Your task to perform on an android device: Search for razer deathadder on target.com, select the first entry, add it to the cart, then select checkout. Image 0: 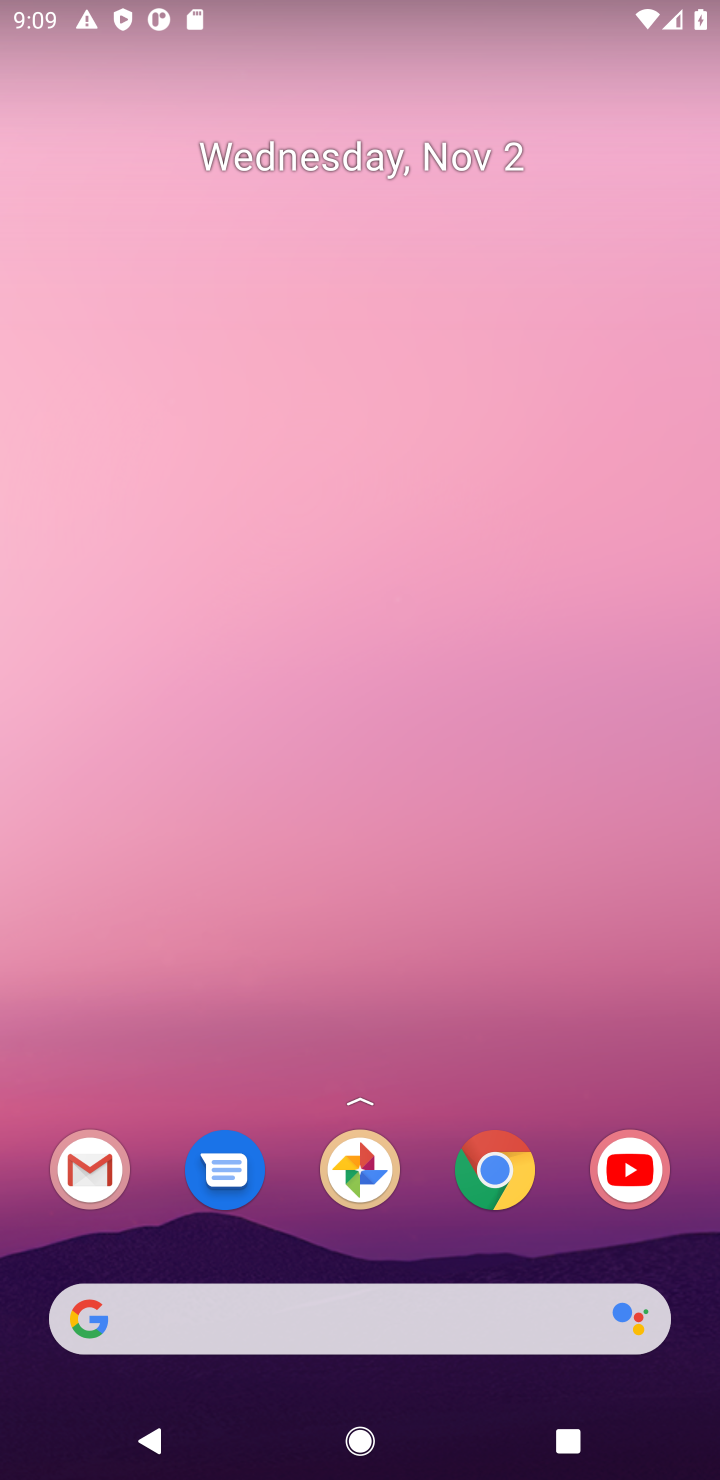
Step 0: click (491, 1189)
Your task to perform on an android device: Search for razer deathadder on target.com, select the first entry, add it to the cart, then select checkout. Image 1: 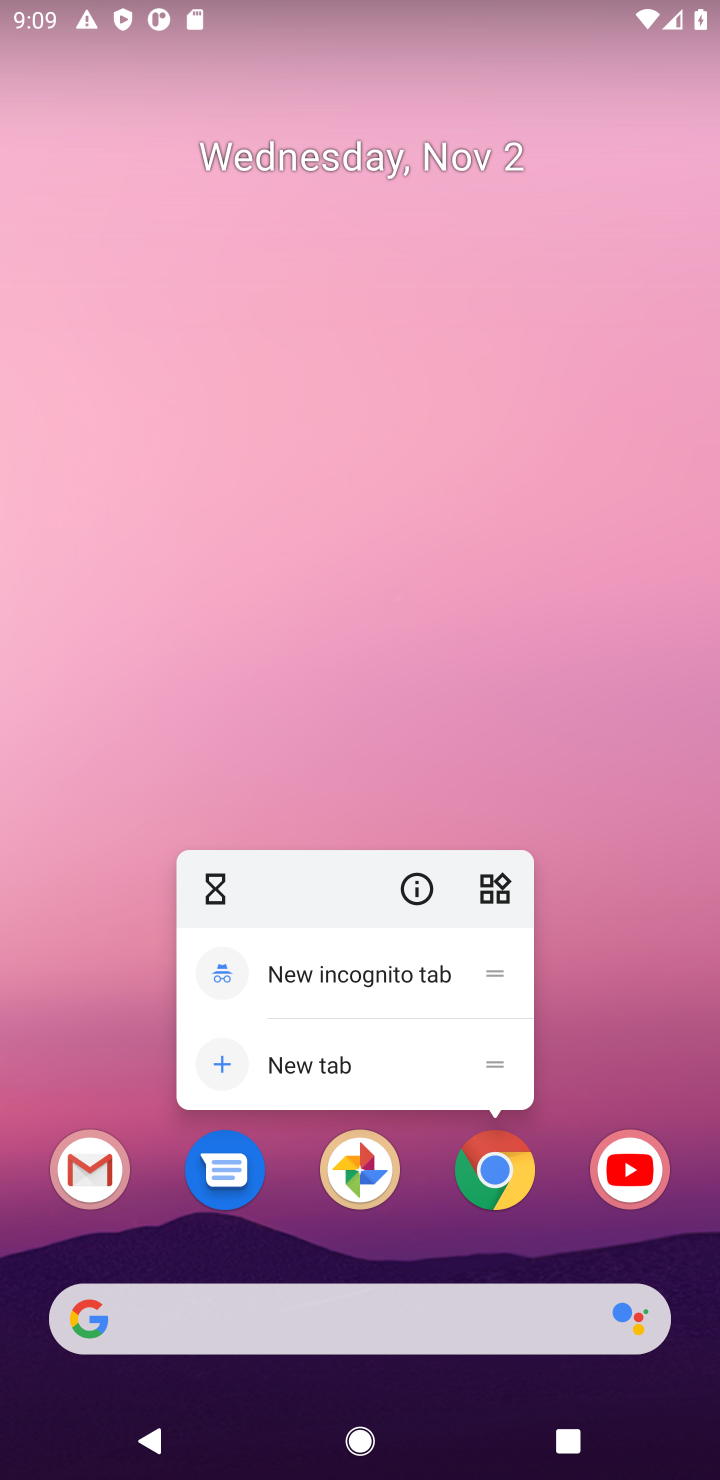
Step 1: click (510, 1194)
Your task to perform on an android device: Search for razer deathadder on target.com, select the first entry, add it to the cart, then select checkout. Image 2: 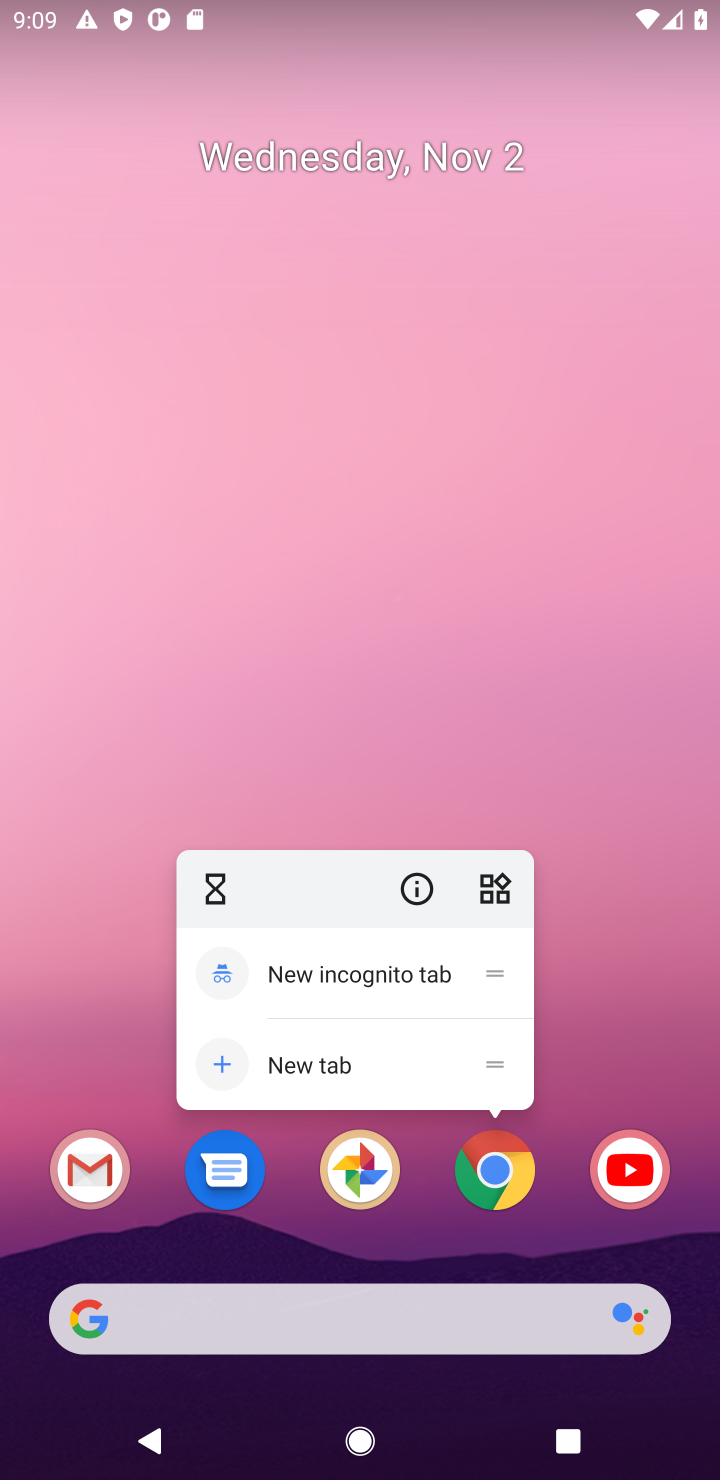
Step 2: click (526, 1178)
Your task to perform on an android device: Search for razer deathadder on target.com, select the first entry, add it to the cart, then select checkout. Image 3: 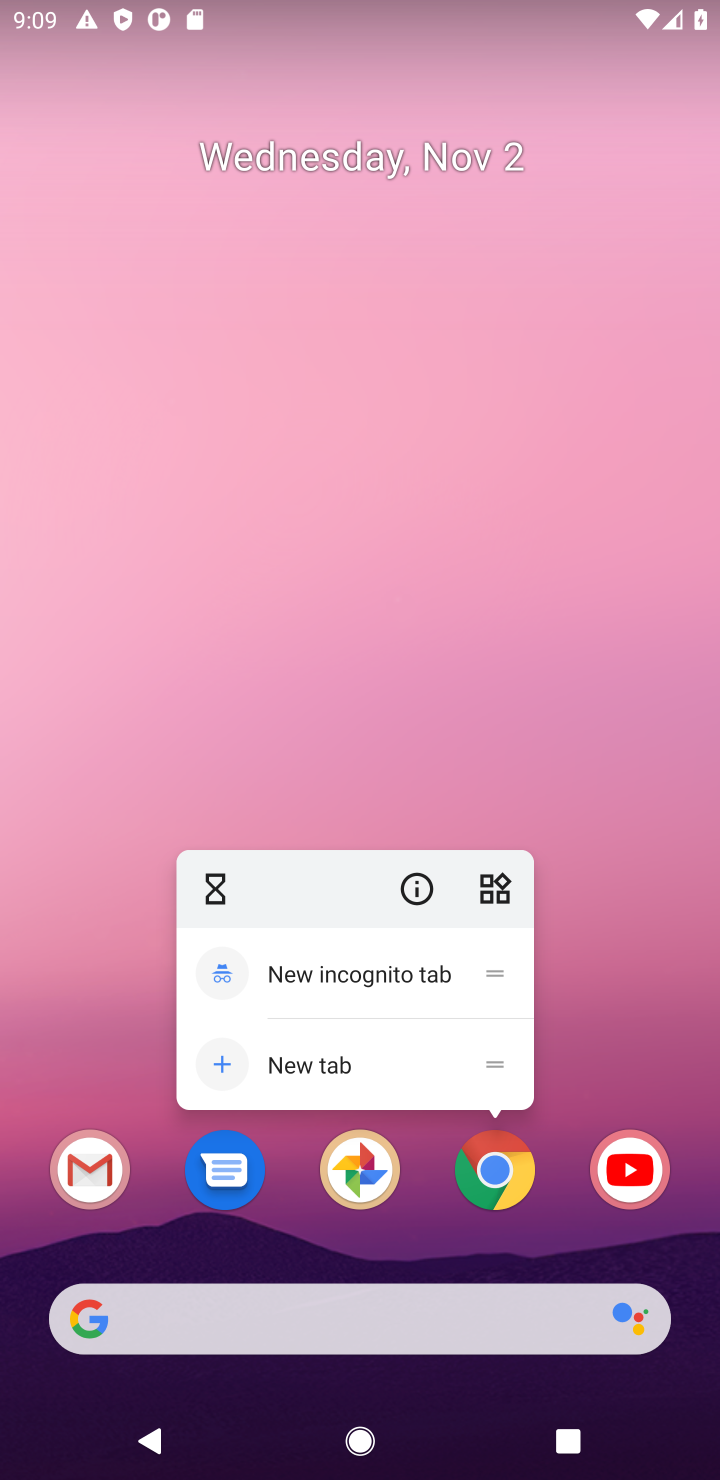
Step 3: click (512, 1190)
Your task to perform on an android device: Search for razer deathadder on target.com, select the first entry, add it to the cart, then select checkout. Image 4: 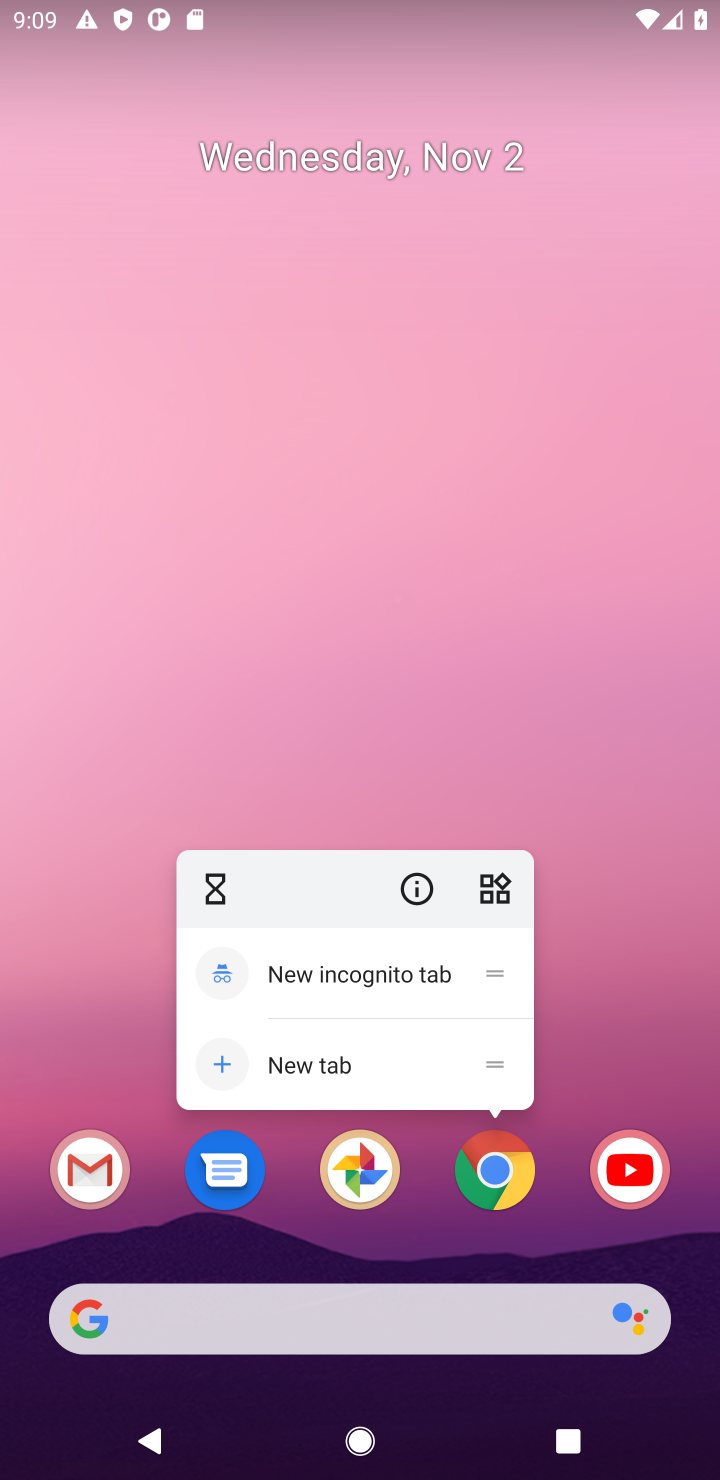
Step 4: click (486, 1189)
Your task to perform on an android device: Search for razer deathadder on target.com, select the first entry, add it to the cart, then select checkout. Image 5: 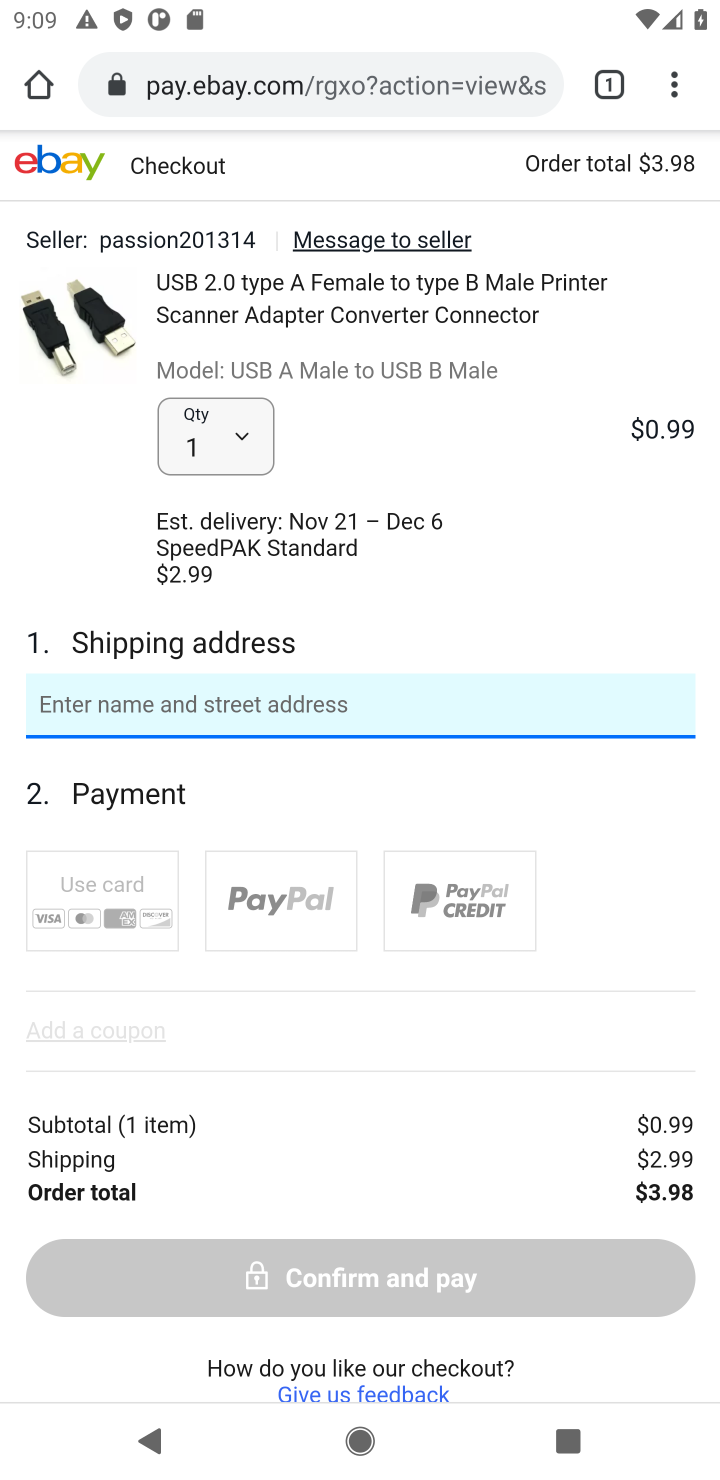
Step 5: click (334, 77)
Your task to perform on an android device: Search for razer deathadder on target.com, select the first entry, add it to the cart, then select checkout. Image 6: 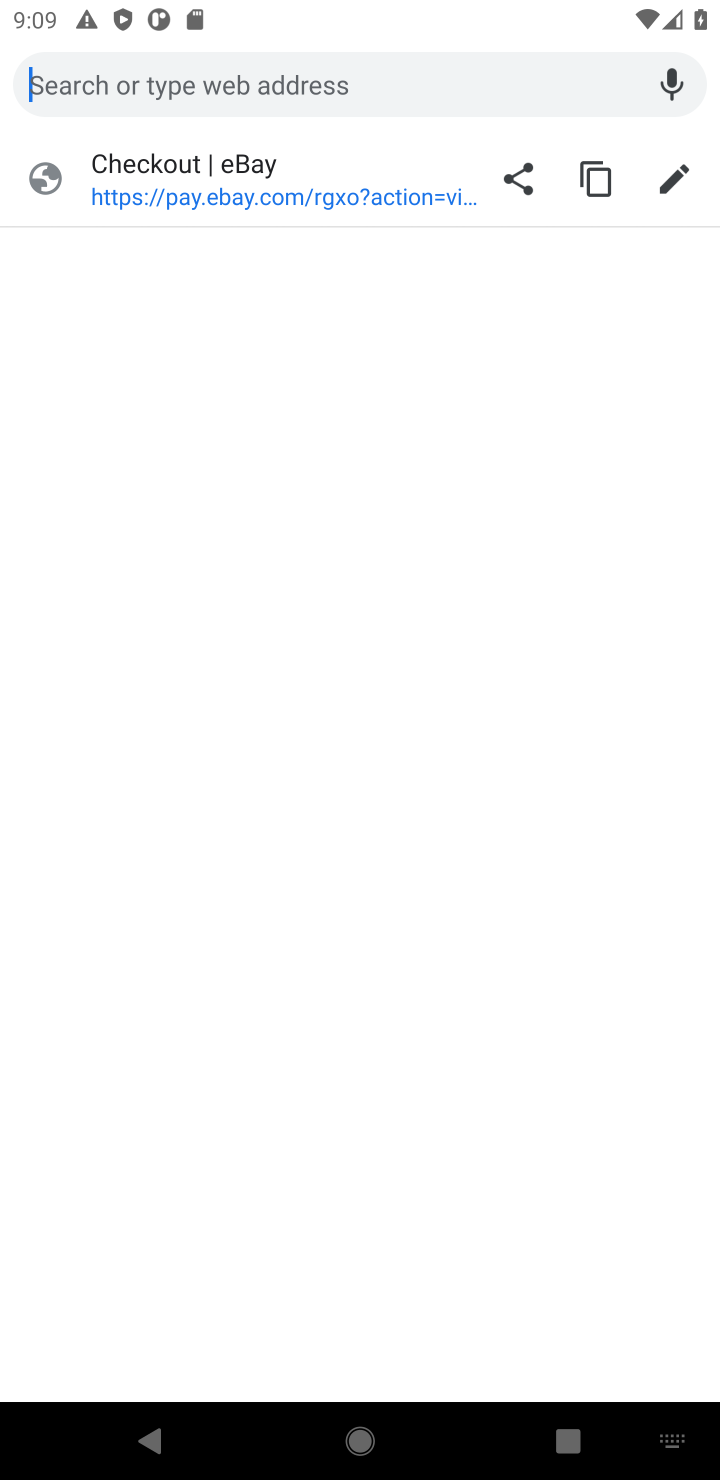
Step 6: type "target.com"
Your task to perform on an android device: Search for razer deathadder on target.com, select the first entry, add it to the cart, then select checkout. Image 7: 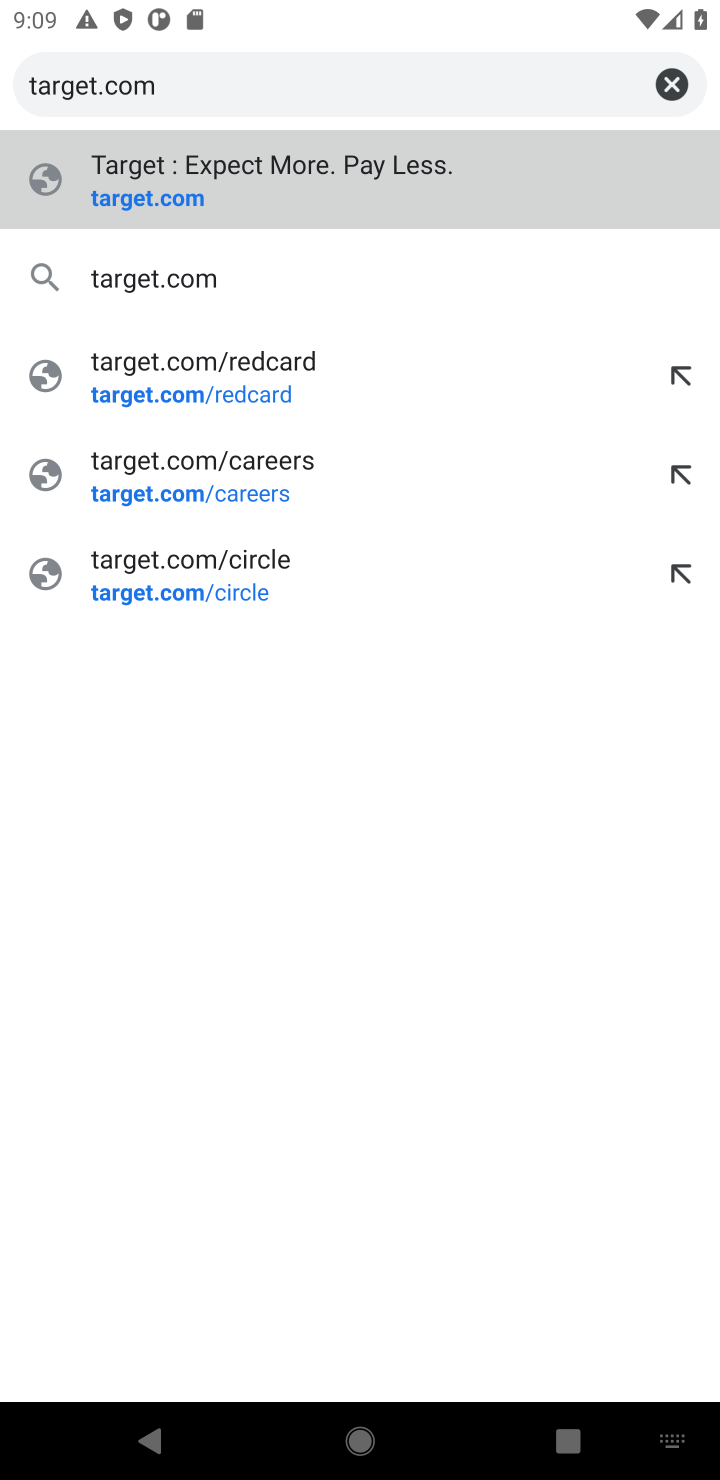
Step 7: type ""
Your task to perform on an android device: Search for razer deathadder on target.com, select the first entry, add it to the cart, then select checkout. Image 8: 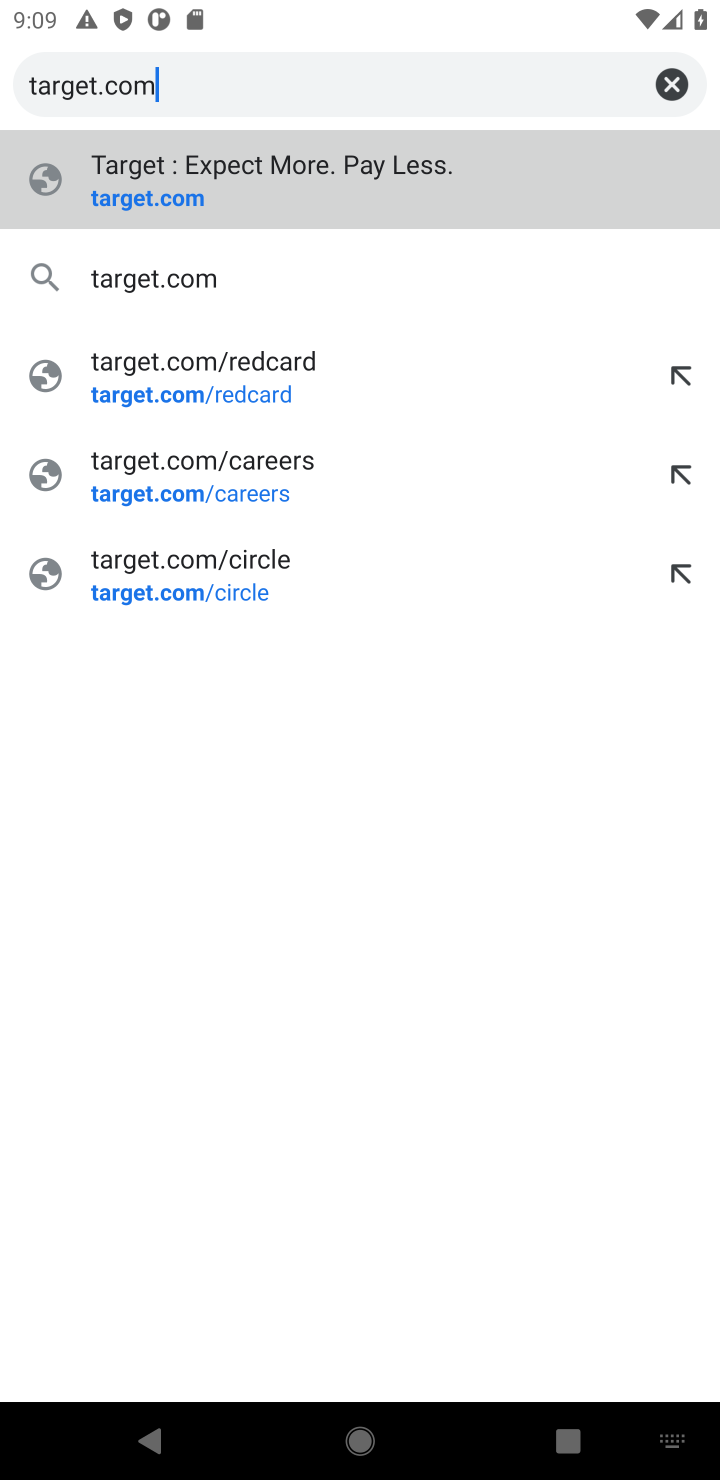
Step 8: press enter
Your task to perform on an android device: Search for razer deathadder on target.com, select the first entry, add it to the cart, then select checkout. Image 9: 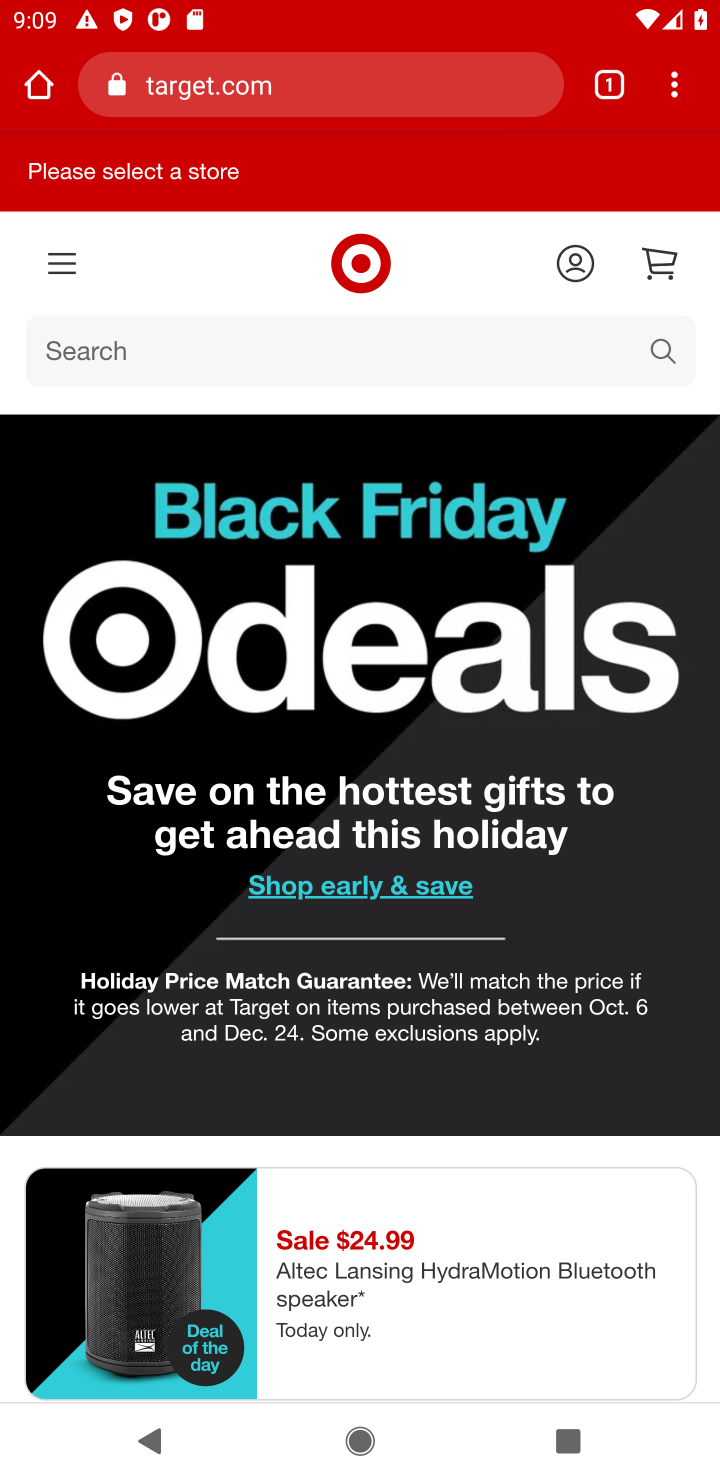
Step 9: click (343, 357)
Your task to perform on an android device: Search for razer deathadder on target.com, select the first entry, add it to the cart, then select checkout. Image 10: 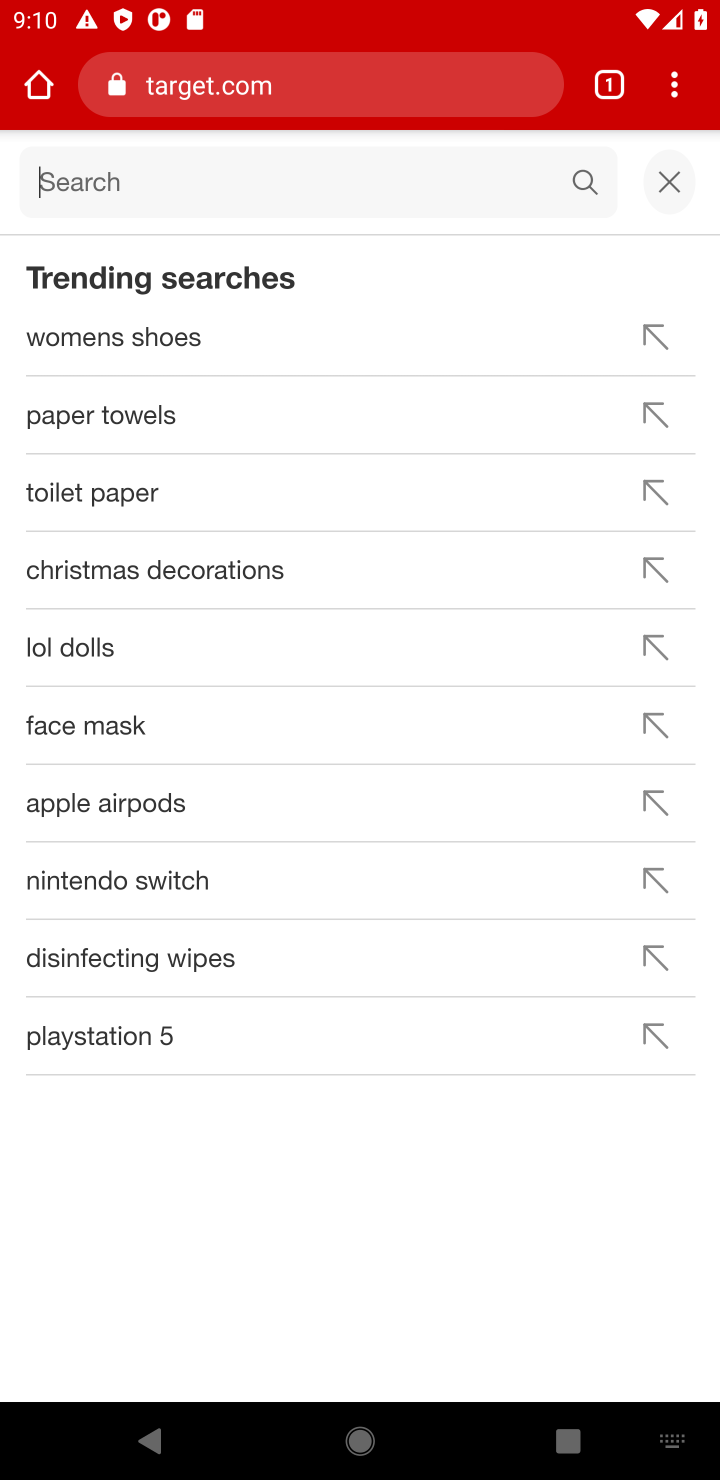
Step 10: type "razer deathadder"
Your task to perform on an android device: Search for razer deathadder on target.com, select the first entry, add it to the cart, then select checkout. Image 11: 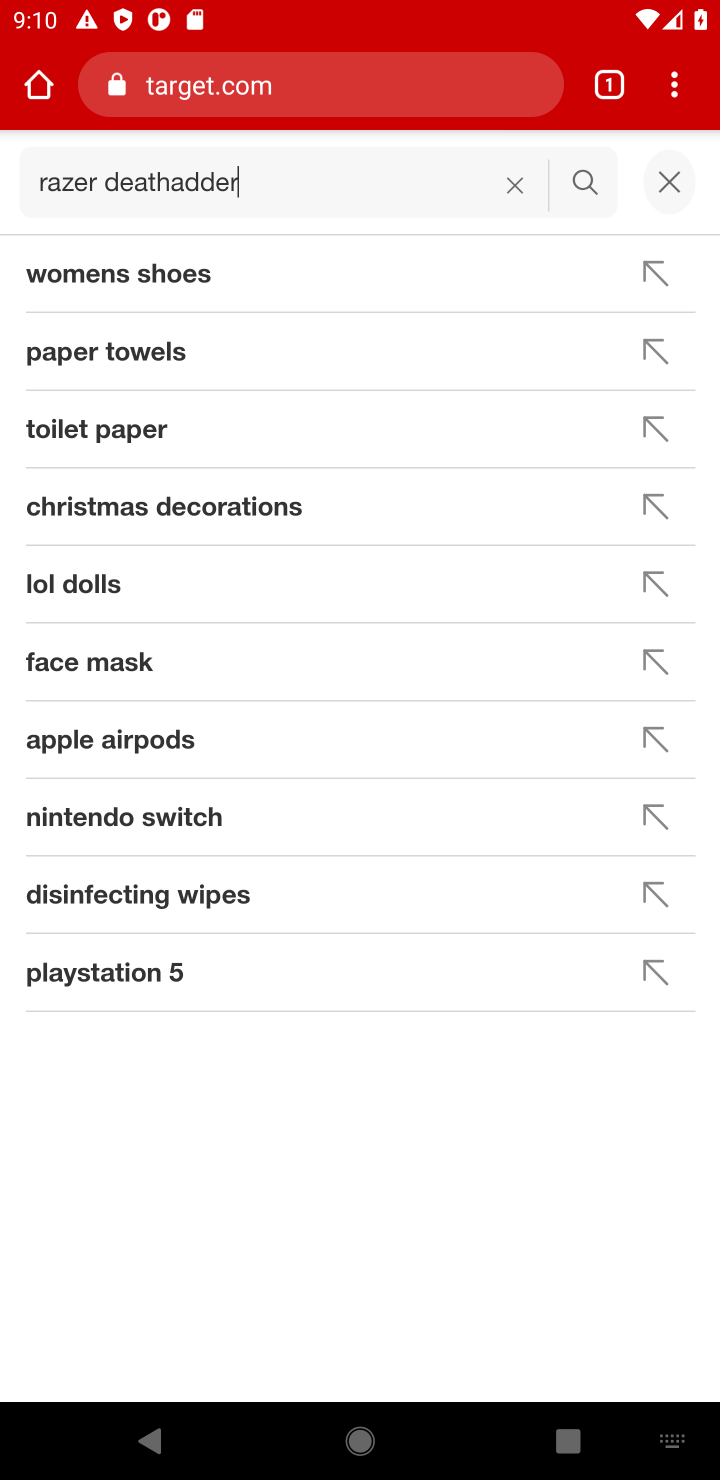
Step 11: type ""
Your task to perform on an android device: Search for razer deathadder on target.com, select the first entry, add it to the cart, then select checkout. Image 12: 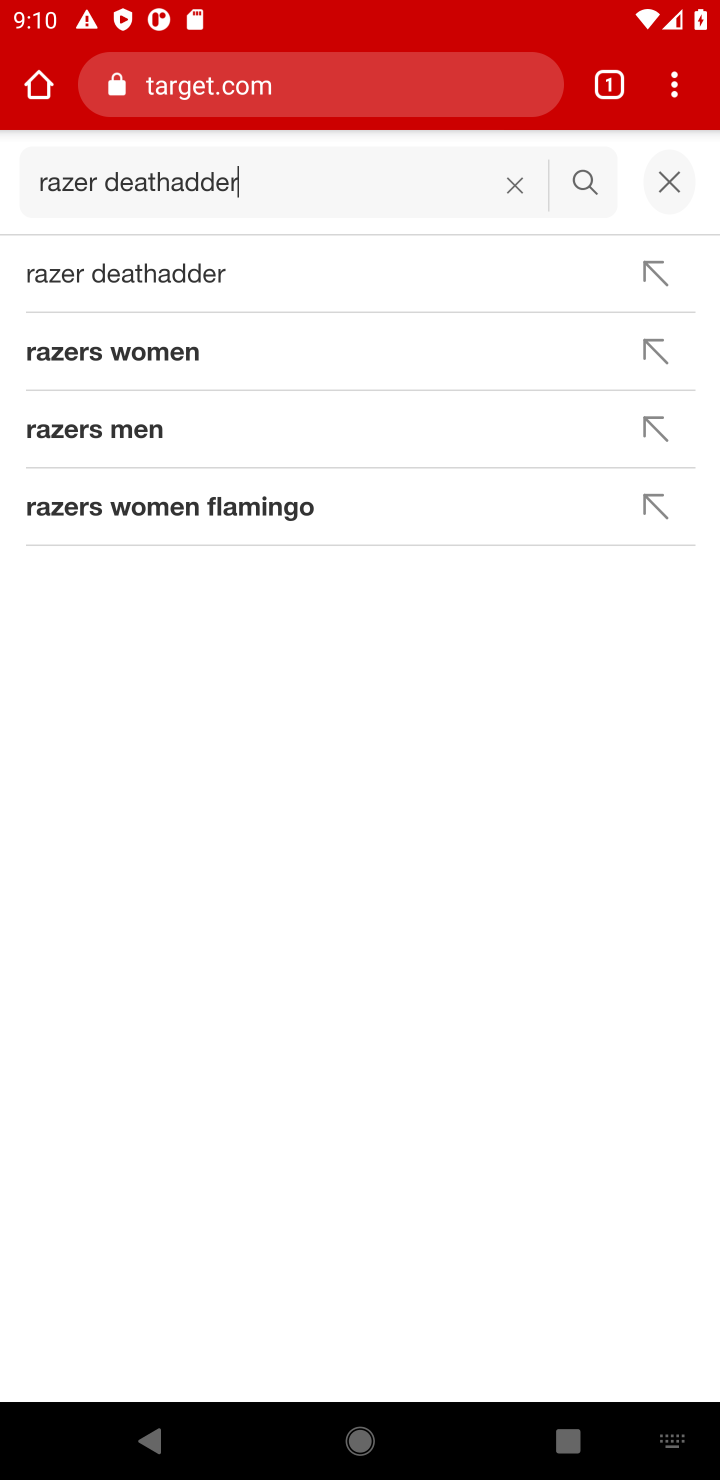
Step 12: press enter
Your task to perform on an android device: Search for razer deathadder on target.com, select the first entry, add it to the cart, then select checkout. Image 13: 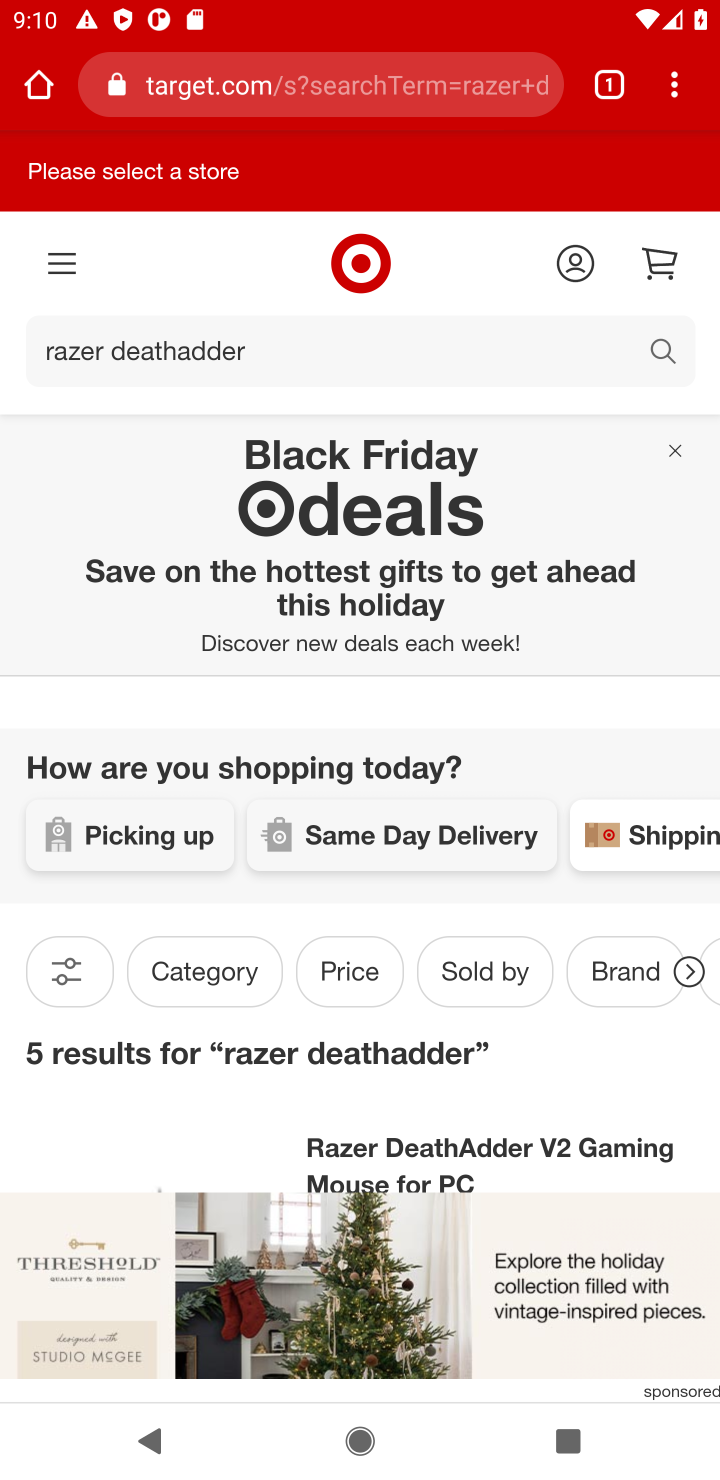
Step 13: drag from (390, 1063) to (560, 258)
Your task to perform on an android device: Search for razer deathadder on target.com, select the first entry, add it to the cart, then select checkout. Image 14: 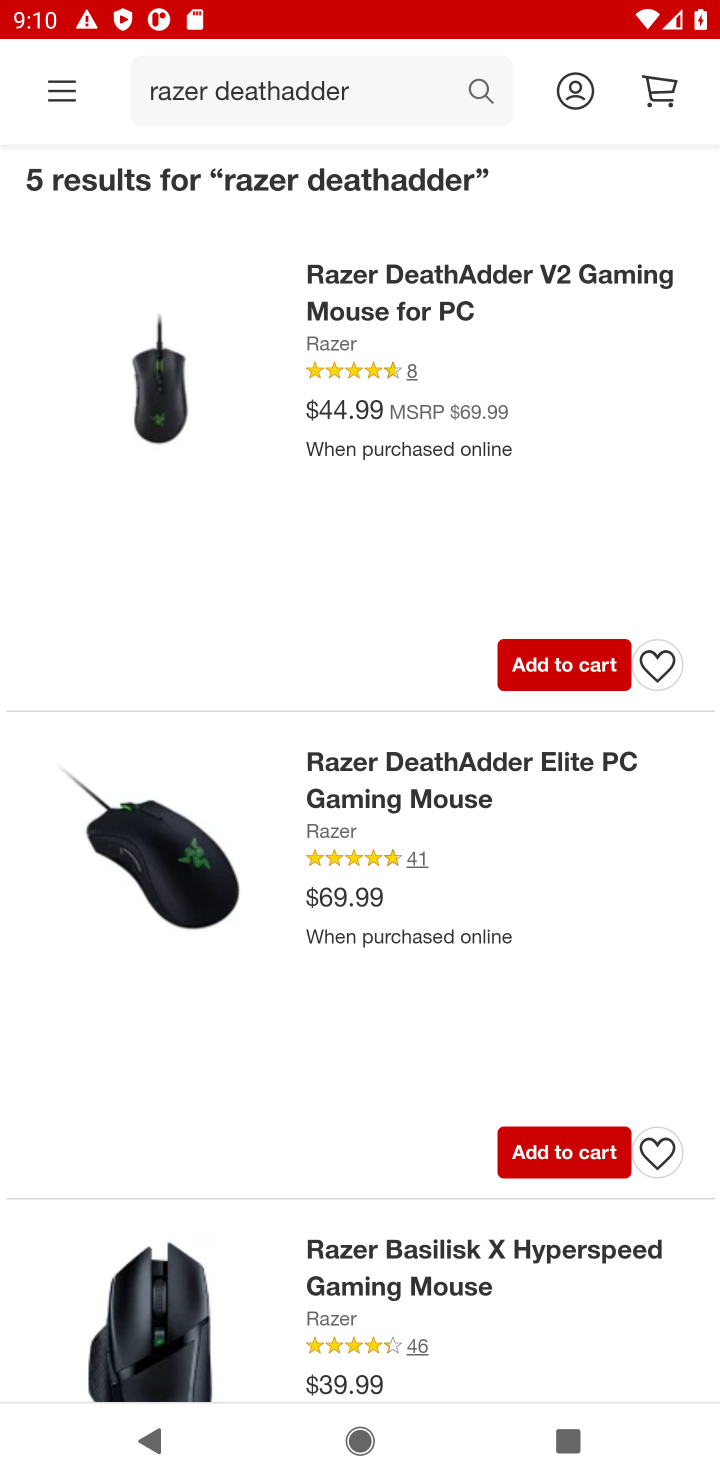
Step 14: drag from (429, 402) to (516, 999)
Your task to perform on an android device: Search for razer deathadder on target.com, select the first entry, add it to the cart, then select checkout. Image 15: 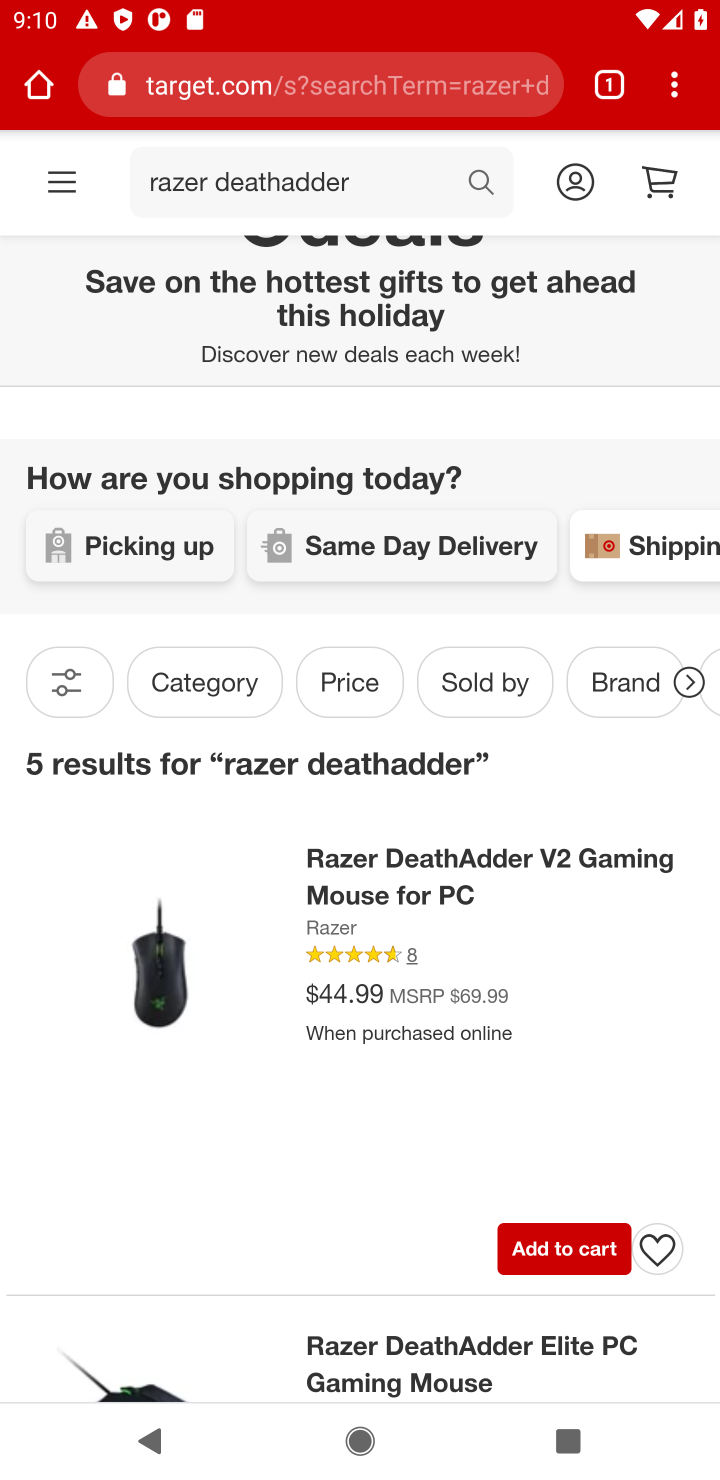
Step 15: drag from (580, 444) to (617, 868)
Your task to perform on an android device: Search for razer deathadder on target.com, select the first entry, add it to the cart, then select checkout. Image 16: 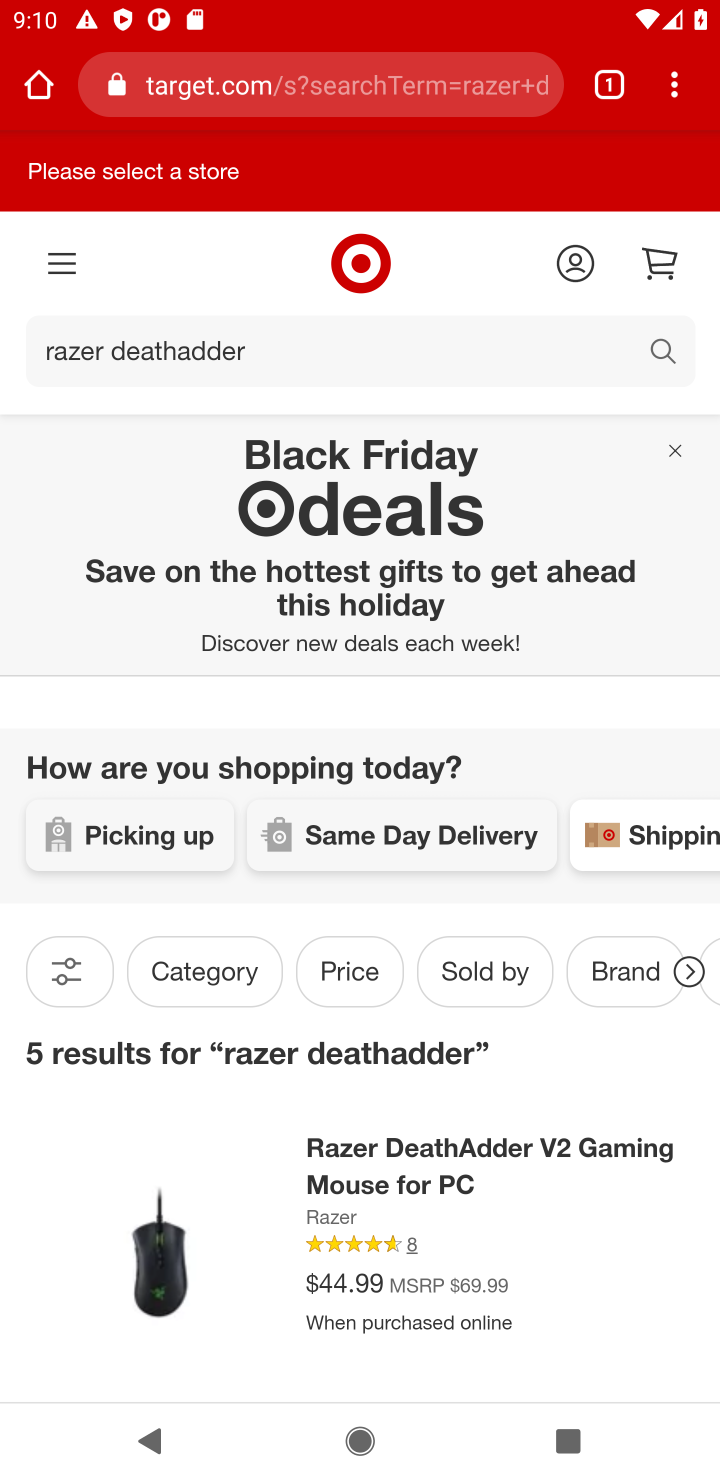
Step 16: click (497, 726)
Your task to perform on an android device: Search for razer deathadder on target.com, select the first entry, add it to the cart, then select checkout. Image 17: 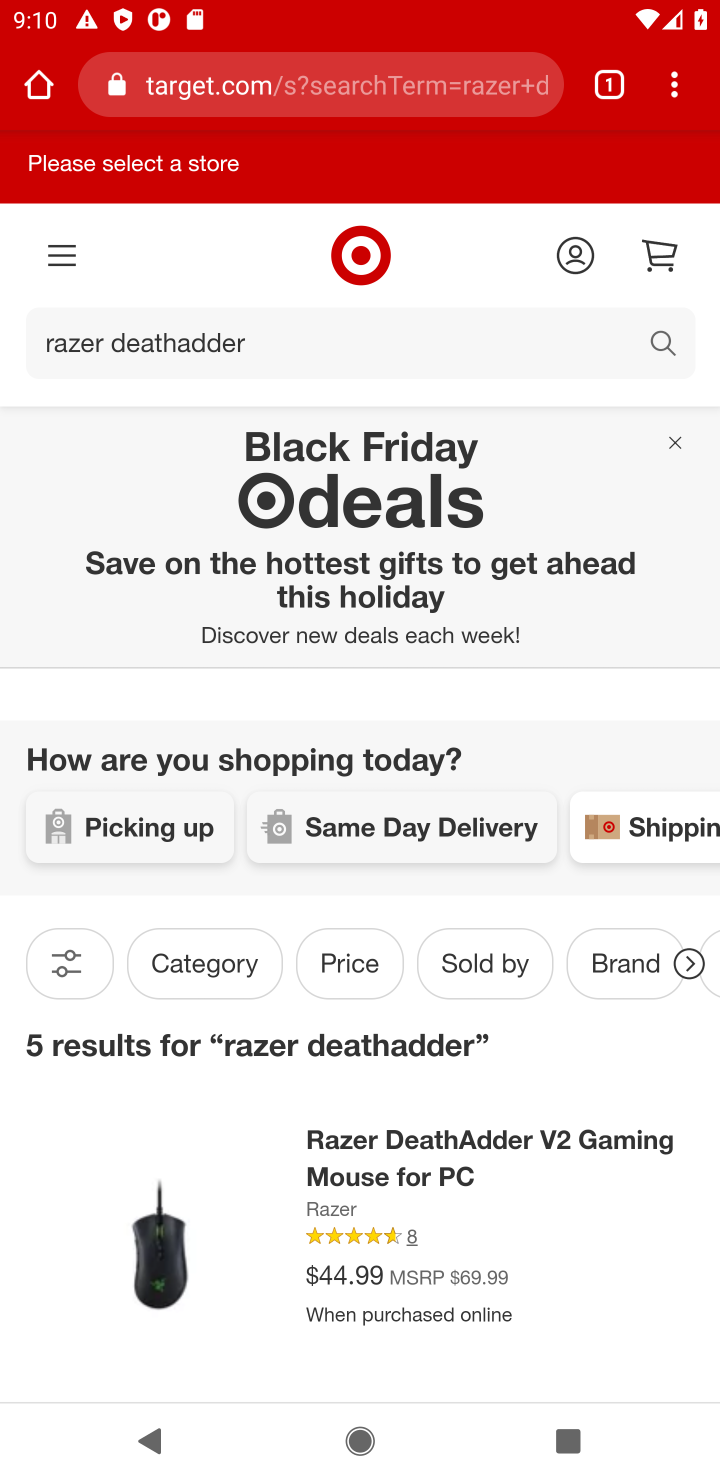
Step 17: click (409, 1155)
Your task to perform on an android device: Search for razer deathadder on target.com, select the first entry, add it to the cart, then select checkout. Image 18: 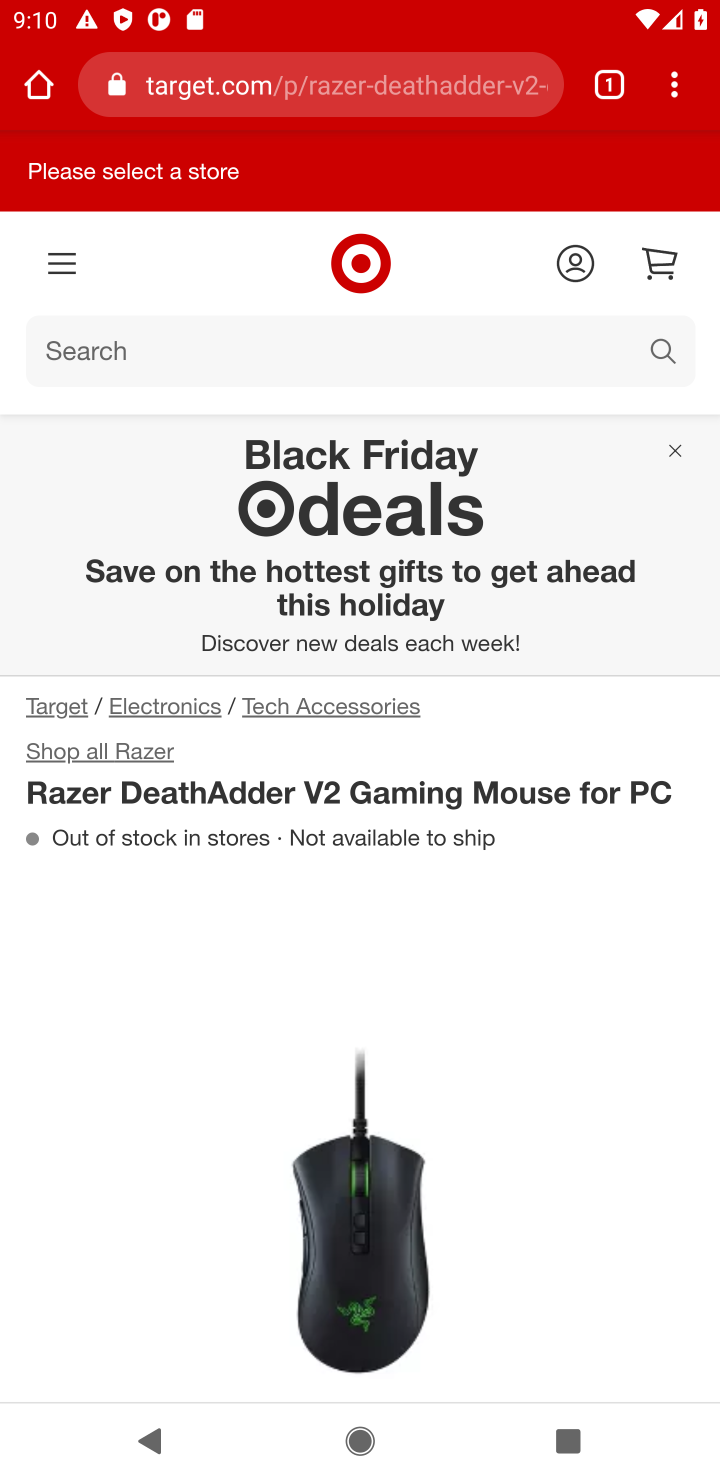
Step 18: drag from (582, 1097) to (567, 484)
Your task to perform on an android device: Search for razer deathadder on target.com, select the first entry, add it to the cart, then select checkout. Image 19: 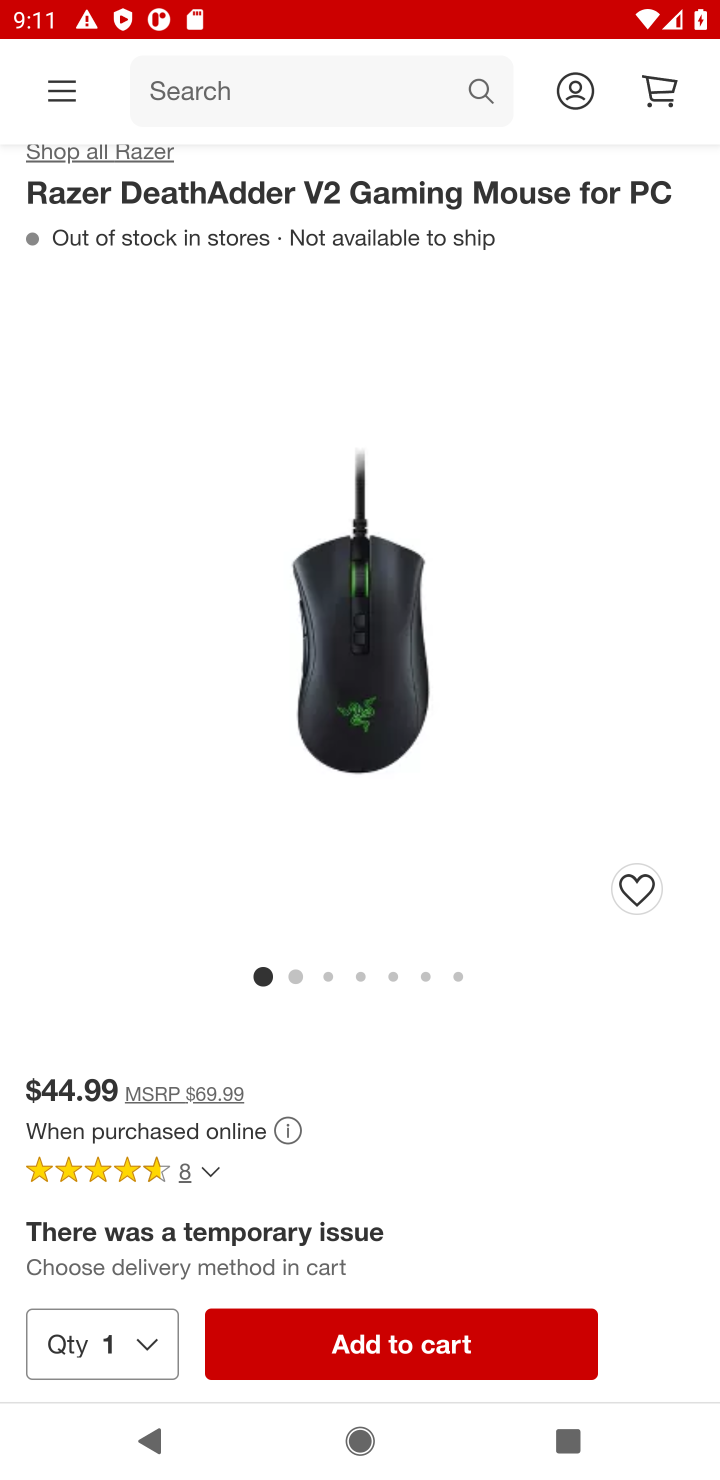
Step 19: click (379, 1344)
Your task to perform on an android device: Search for razer deathadder on target.com, select the first entry, add it to the cart, then select checkout. Image 20: 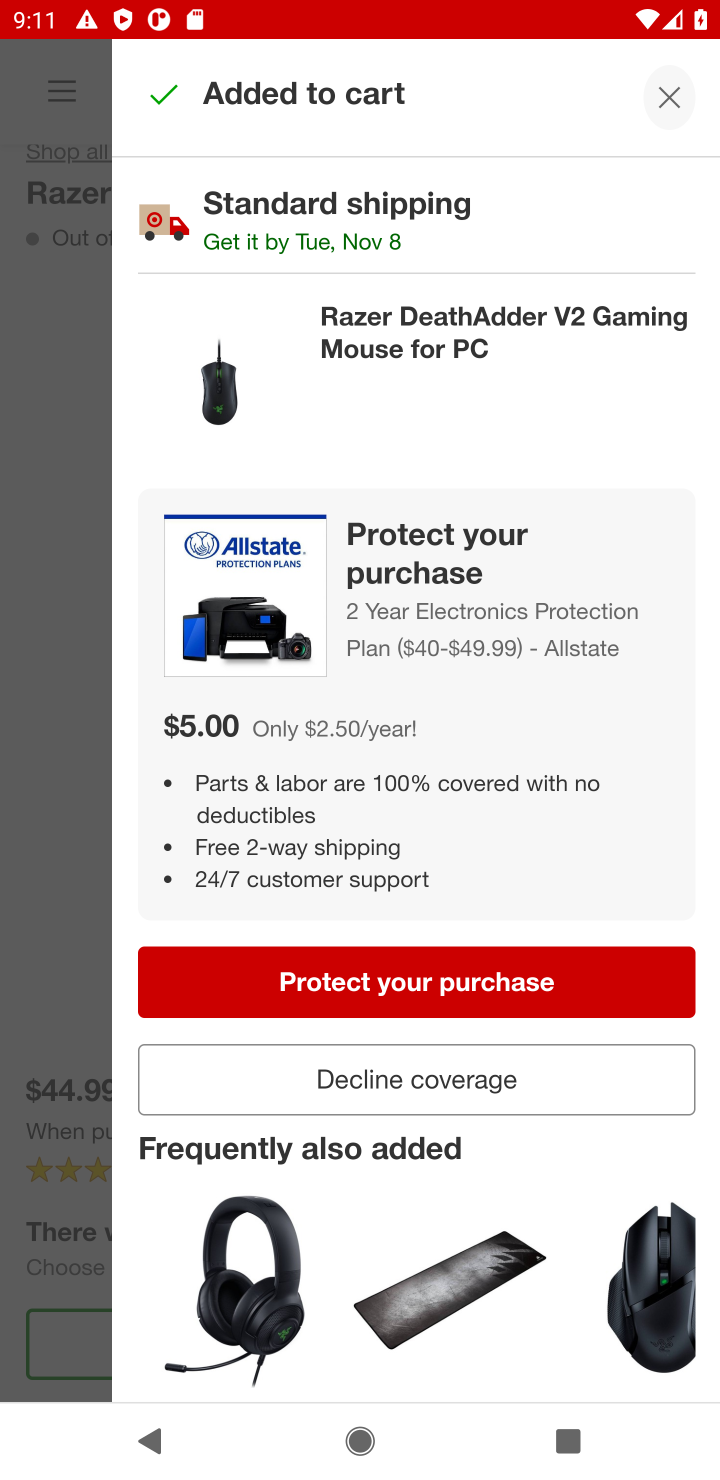
Step 20: click (380, 1085)
Your task to perform on an android device: Search for razer deathadder on target.com, select the first entry, add it to the cart, then select checkout. Image 21: 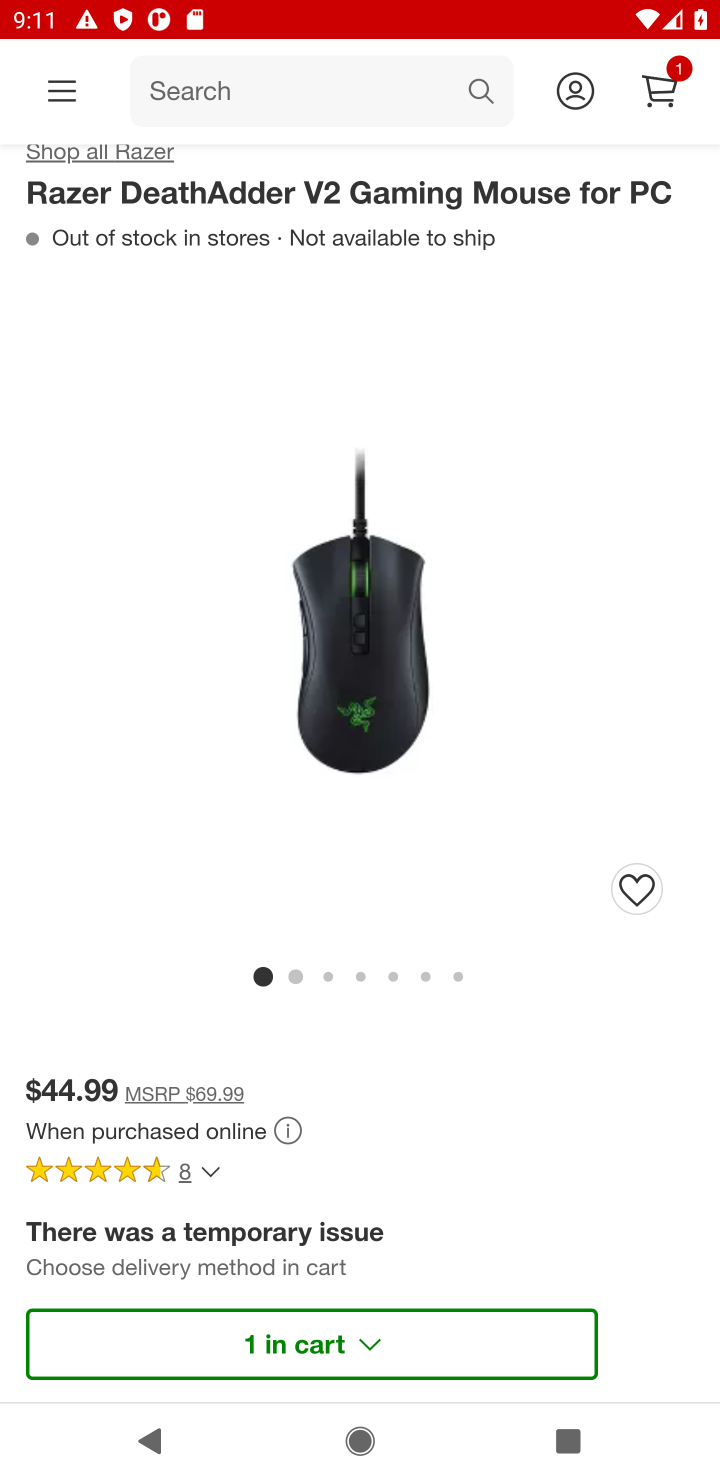
Step 21: click (656, 81)
Your task to perform on an android device: Search for razer deathadder on target.com, select the first entry, add it to the cart, then select checkout. Image 22: 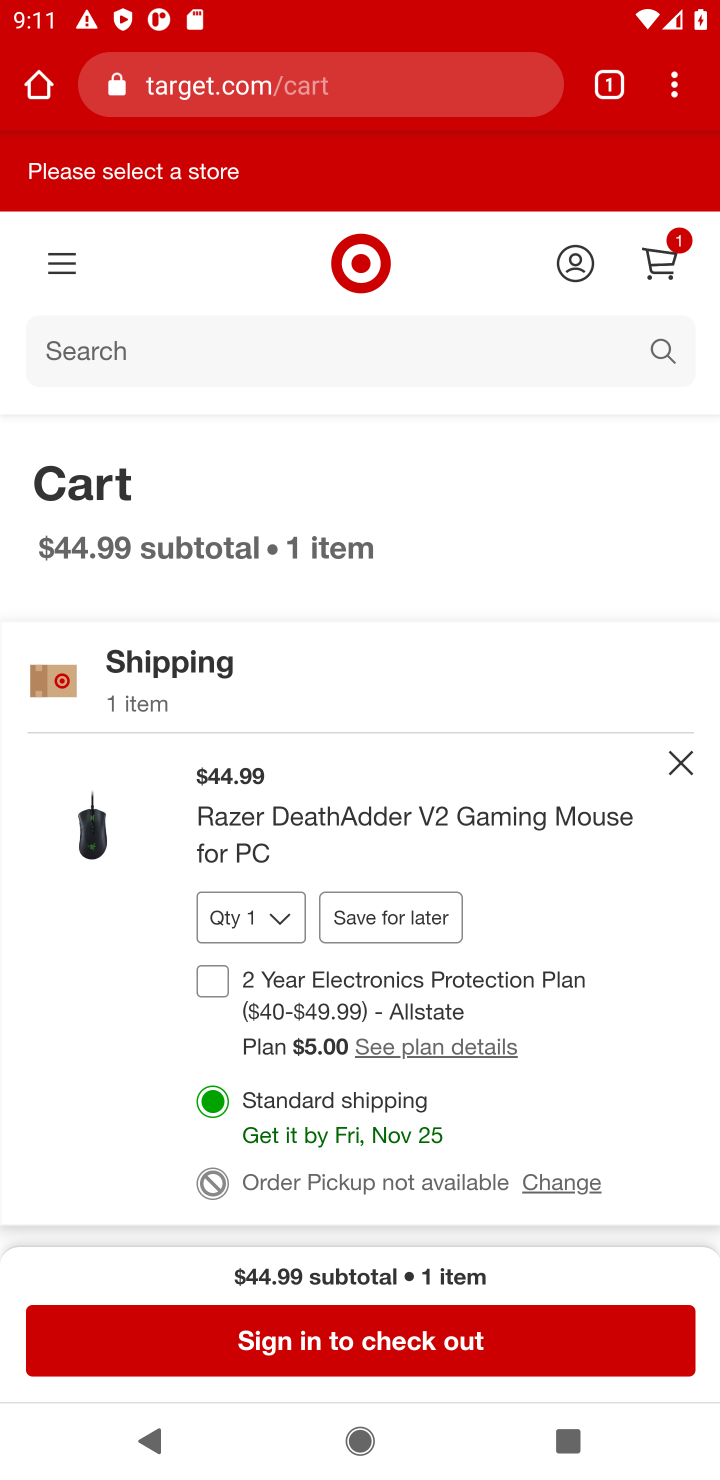
Step 22: click (400, 1367)
Your task to perform on an android device: Search for razer deathadder on target.com, select the first entry, add it to the cart, then select checkout. Image 23: 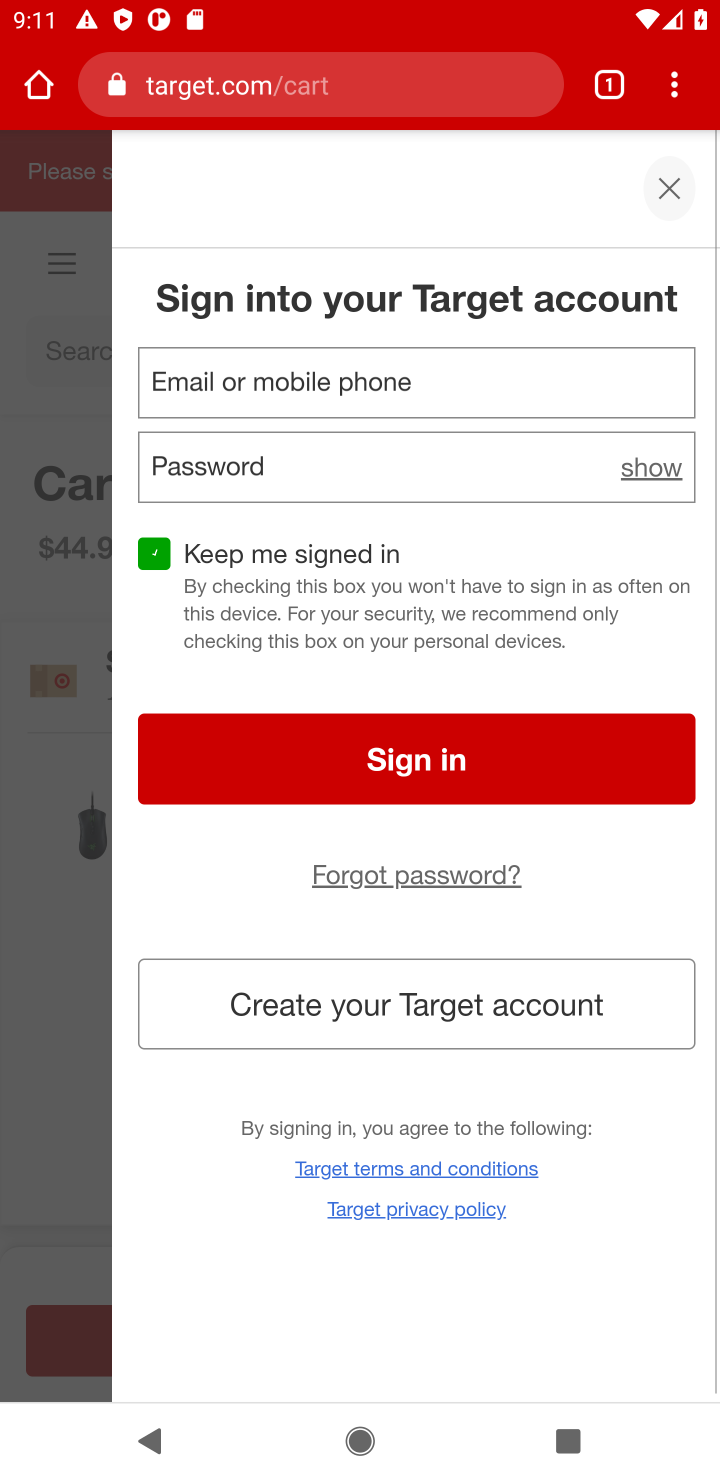
Step 23: click (311, 1360)
Your task to perform on an android device: Search for razer deathadder on target.com, select the first entry, add it to the cart, then select checkout. Image 24: 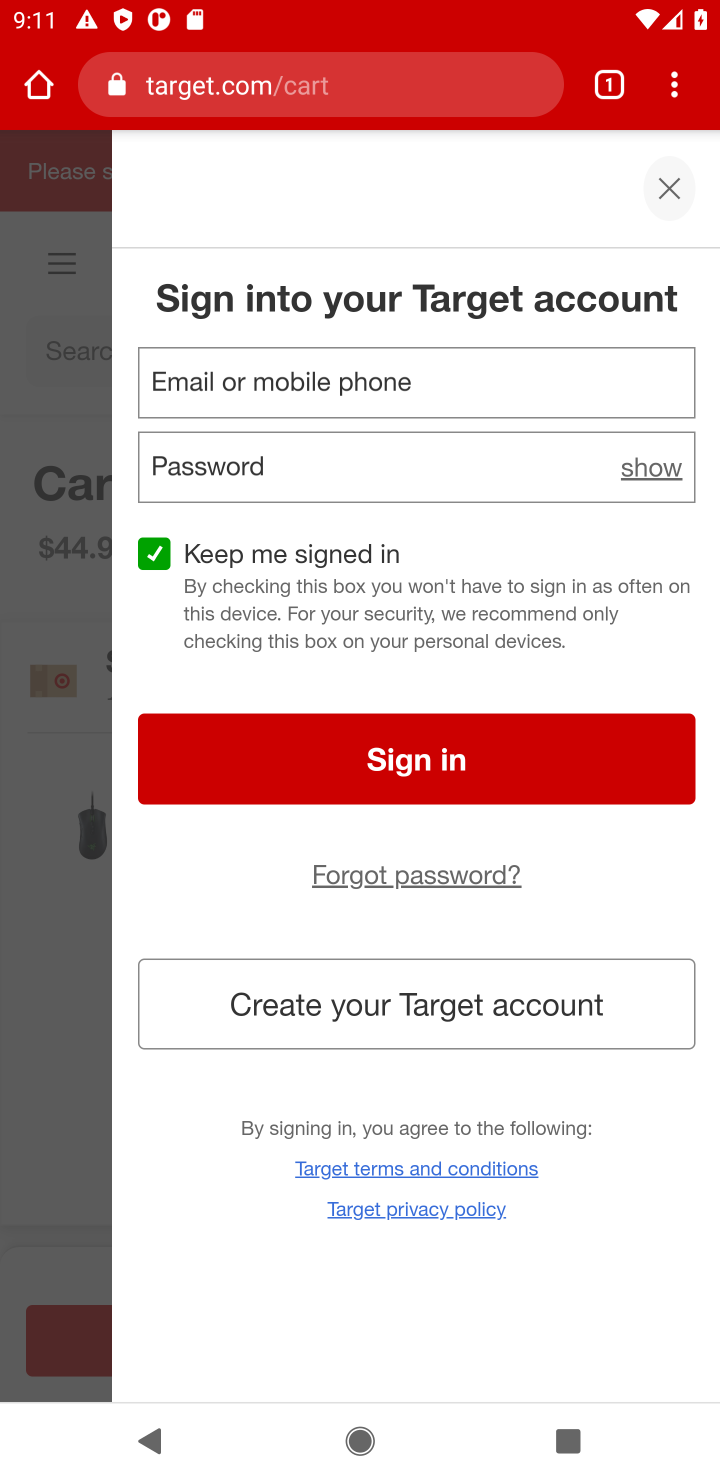
Step 24: task complete